Your task to perform on an android device: open device folders in google photos Image 0: 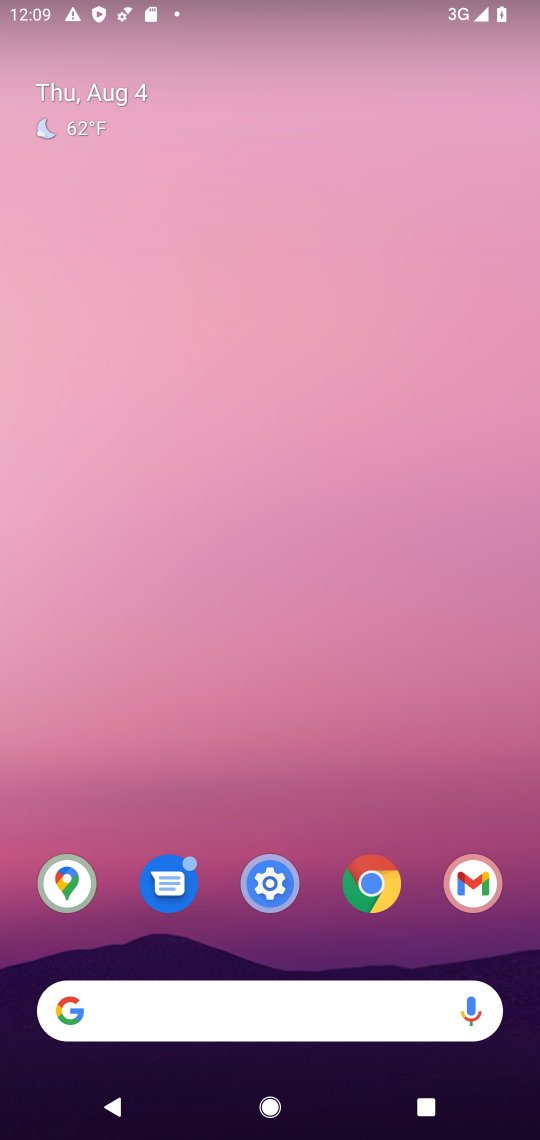
Step 0: drag from (221, 877) to (202, 259)
Your task to perform on an android device: open device folders in google photos Image 1: 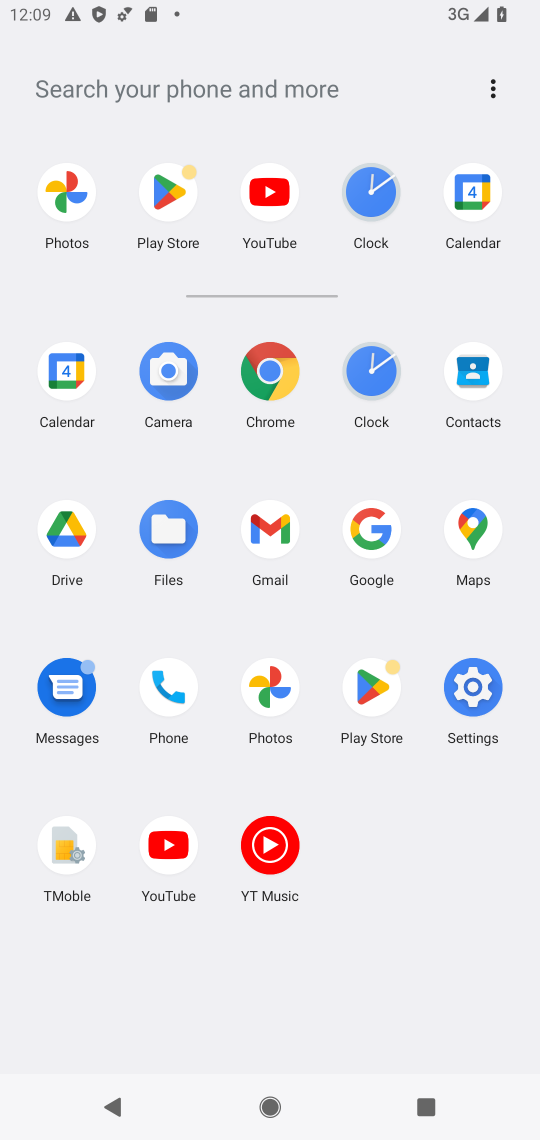
Step 1: click (282, 690)
Your task to perform on an android device: open device folders in google photos Image 2: 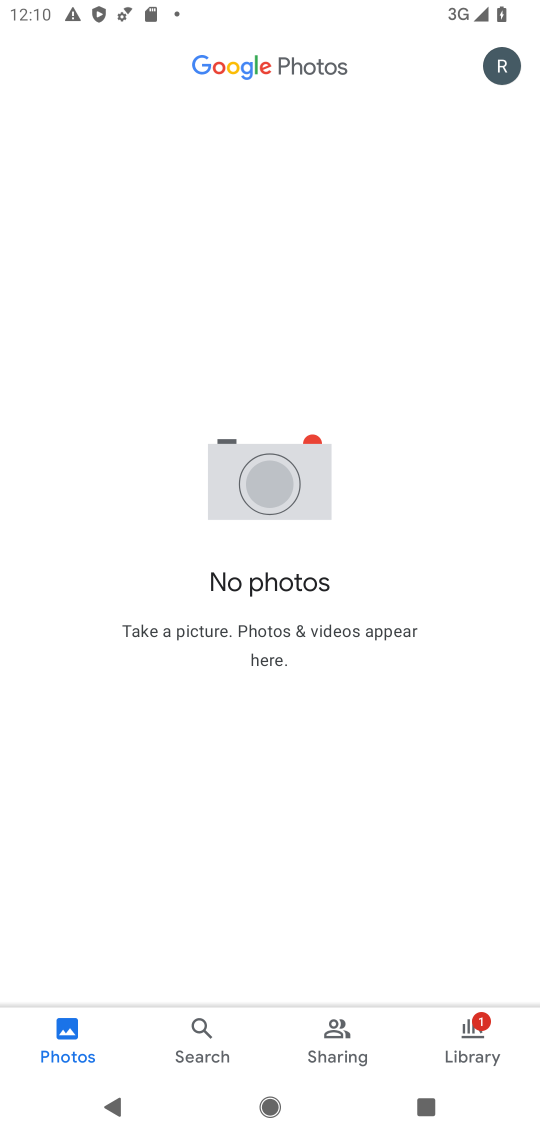
Step 2: task complete